Your task to perform on an android device: Go to Maps Image 0: 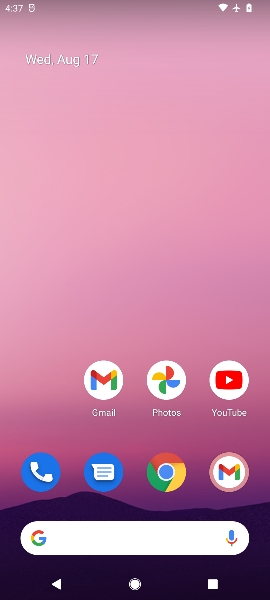
Step 0: drag from (124, 510) to (158, 245)
Your task to perform on an android device: Go to Maps Image 1: 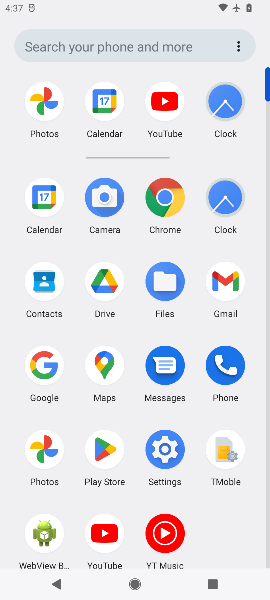
Step 1: click (98, 378)
Your task to perform on an android device: Go to Maps Image 2: 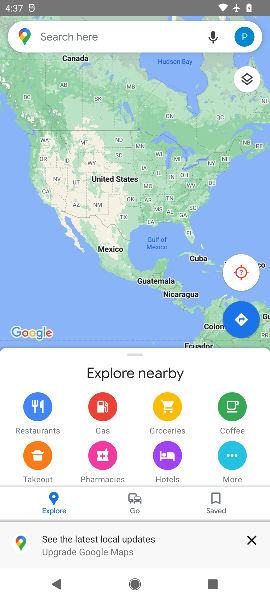
Step 2: task complete